Your task to perform on an android device: Open Google Chrome Image 0: 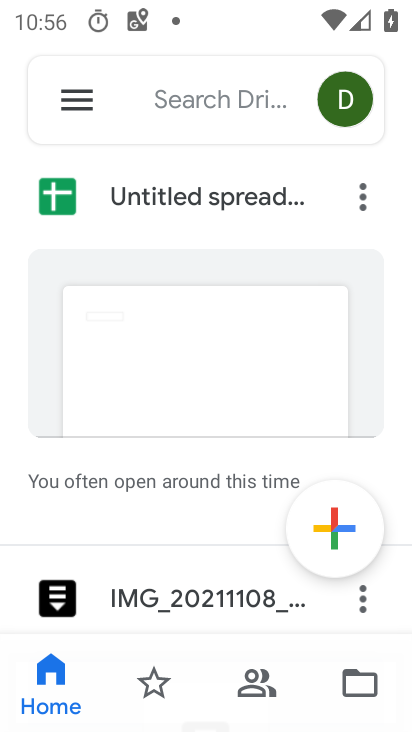
Step 0: press home button
Your task to perform on an android device: Open Google Chrome Image 1: 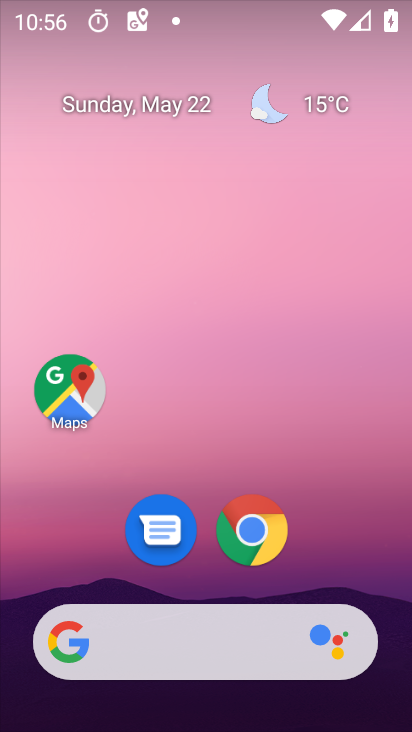
Step 1: click (259, 520)
Your task to perform on an android device: Open Google Chrome Image 2: 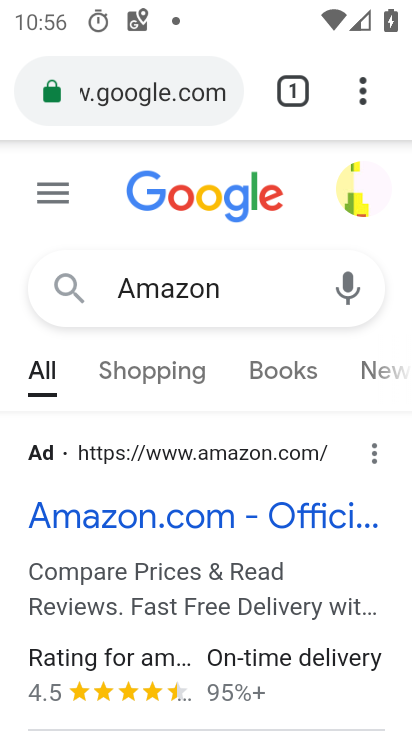
Step 2: click (364, 93)
Your task to perform on an android device: Open Google Chrome Image 3: 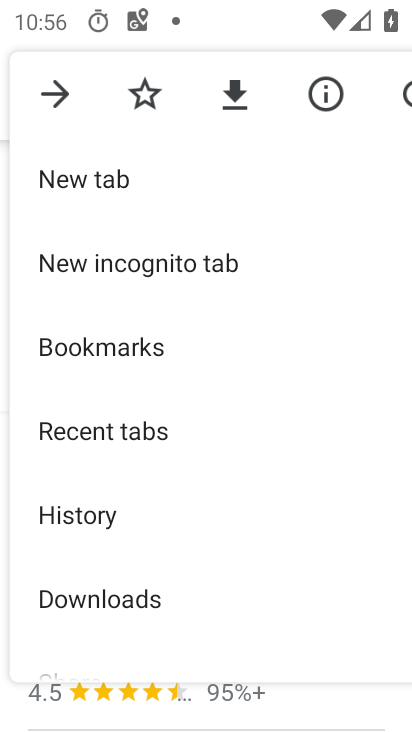
Step 3: task complete